Your task to perform on an android device: Search for pizza restaurants on Maps Image 0: 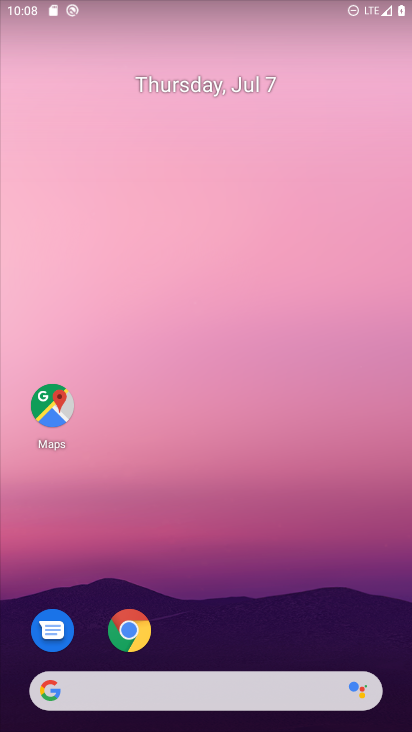
Step 0: click (34, 404)
Your task to perform on an android device: Search for pizza restaurants on Maps Image 1: 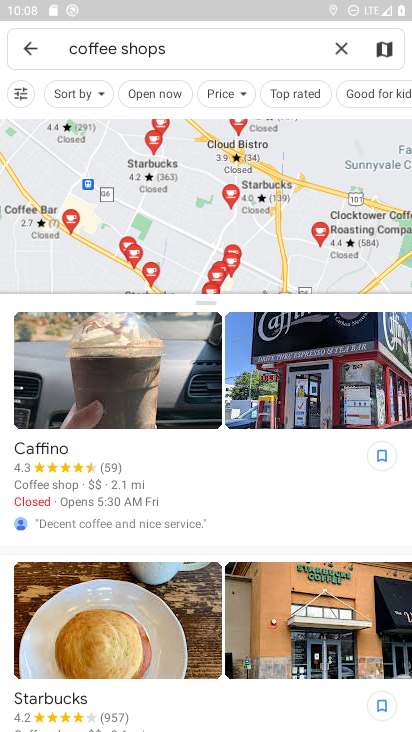
Step 1: click (334, 50)
Your task to perform on an android device: Search for pizza restaurants on Maps Image 2: 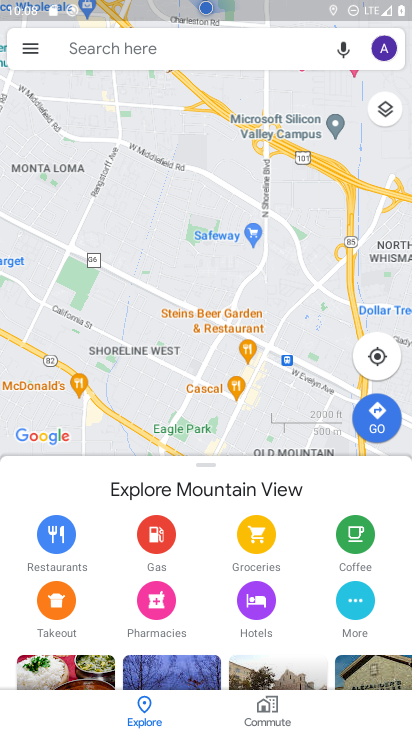
Step 2: click (145, 46)
Your task to perform on an android device: Search for pizza restaurants on Maps Image 3: 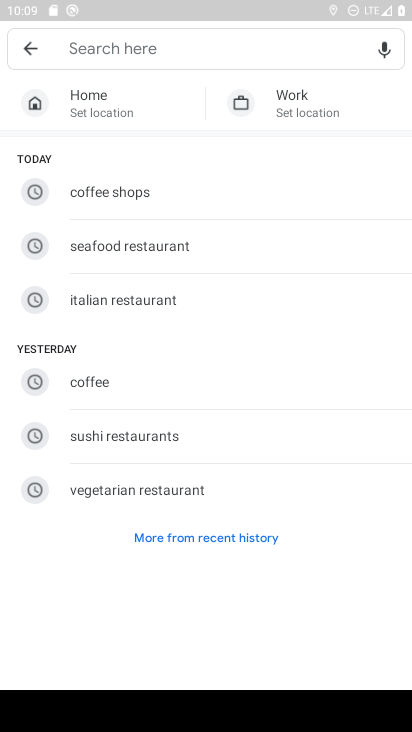
Step 3: type "pizza restaurants"
Your task to perform on an android device: Search for pizza restaurants on Maps Image 4: 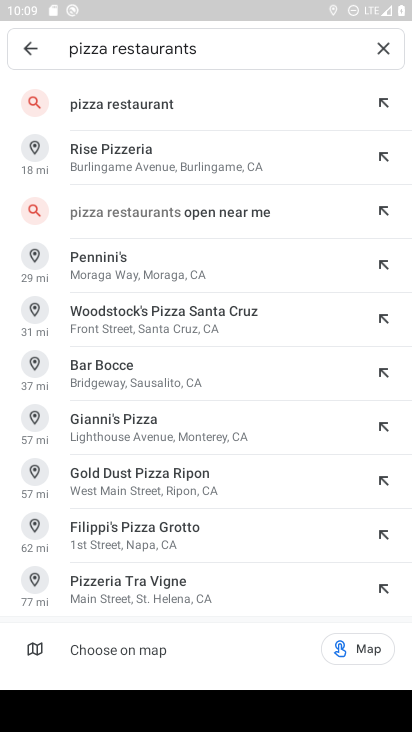
Step 4: click (172, 111)
Your task to perform on an android device: Search for pizza restaurants on Maps Image 5: 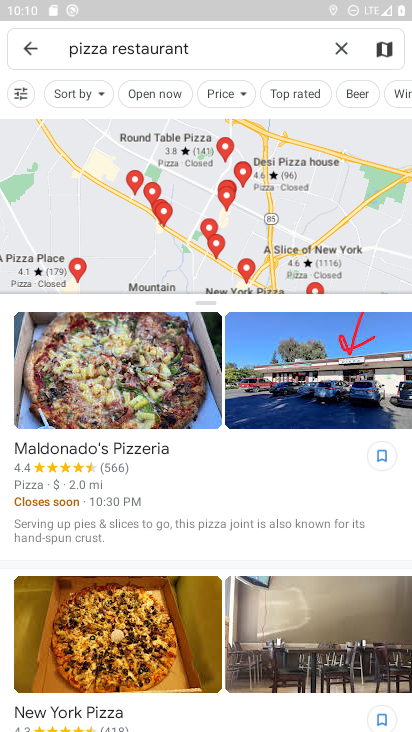
Step 5: task complete